Your task to perform on an android device: Open network settings Image 0: 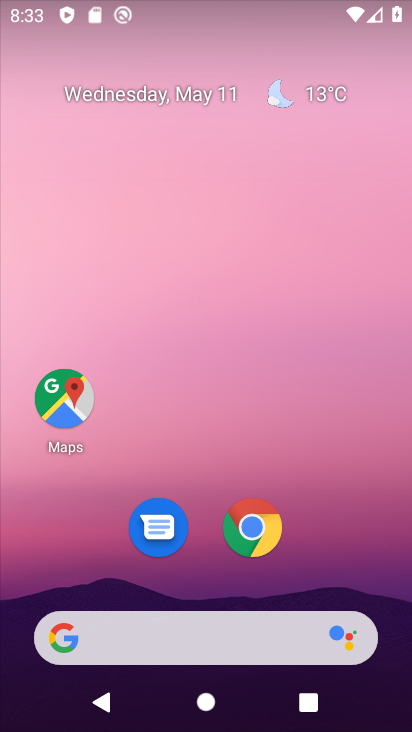
Step 0: drag from (325, 487) to (324, 108)
Your task to perform on an android device: Open network settings Image 1: 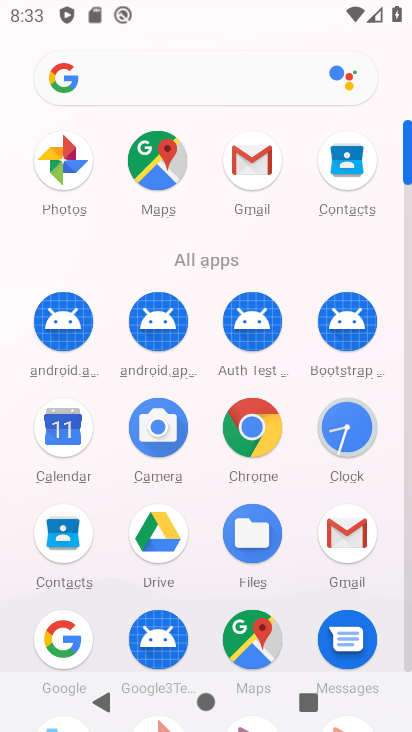
Step 1: drag from (217, 562) to (217, 300)
Your task to perform on an android device: Open network settings Image 2: 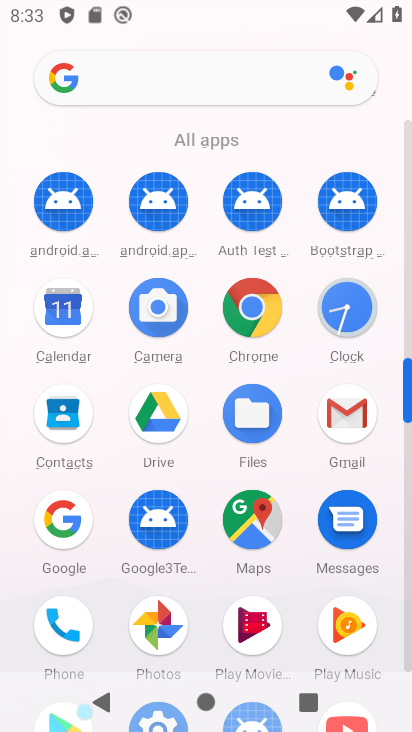
Step 2: drag from (214, 616) to (219, 389)
Your task to perform on an android device: Open network settings Image 3: 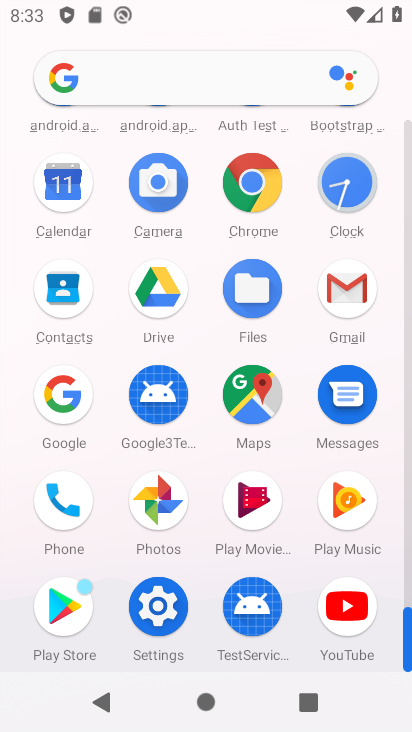
Step 3: click (159, 614)
Your task to perform on an android device: Open network settings Image 4: 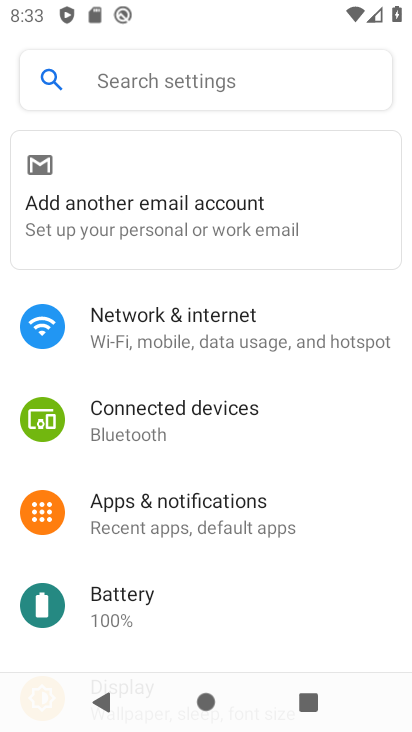
Step 4: click (187, 344)
Your task to perform on an android device: Open network settings Image 5: 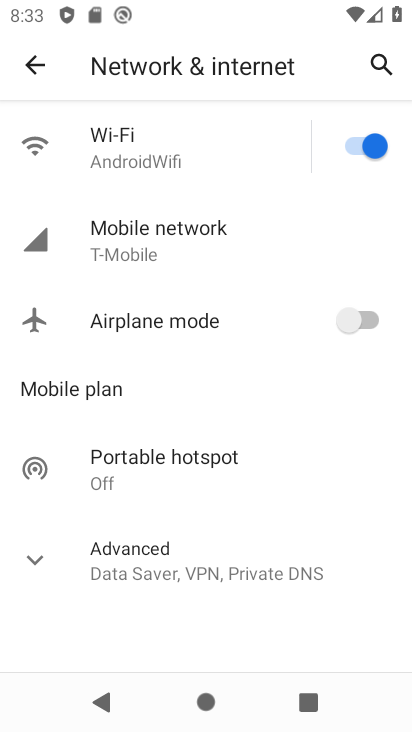
Step 5: task complete